Your task to perform on an android device: change the clock display to digital Image 0: 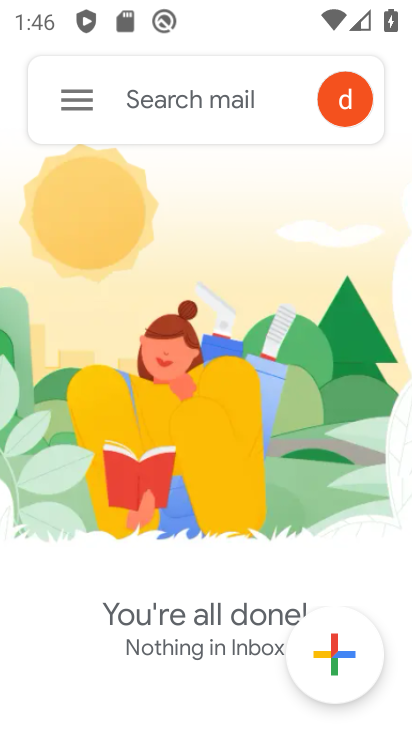
Step 0: press home button
Your task to perform on an android device: change the clock display to digital Image 1: 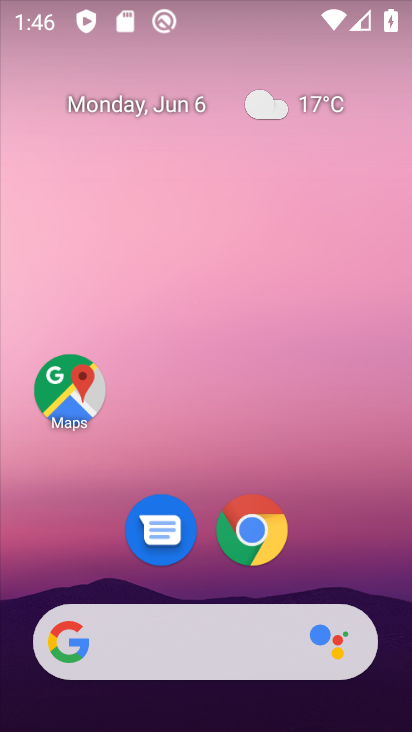
Step 1: drag from (313, 564) to (323, 224)
Your task to perform on an android device: change the clock display to digital Image 2: 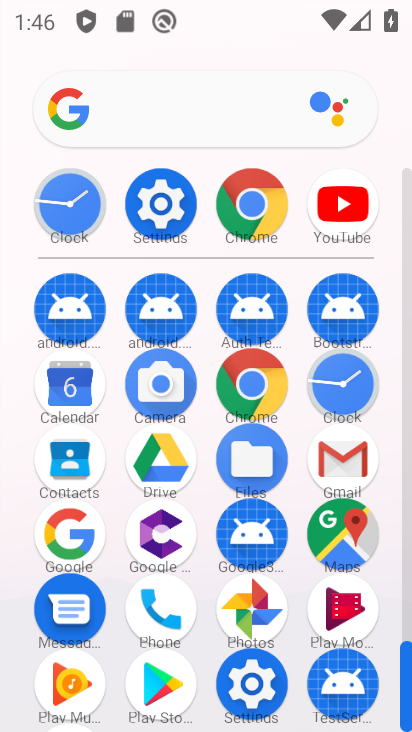
Step 2: click (347, 372)
Your task to perform on an android device: change the clock display to digital Image 3: 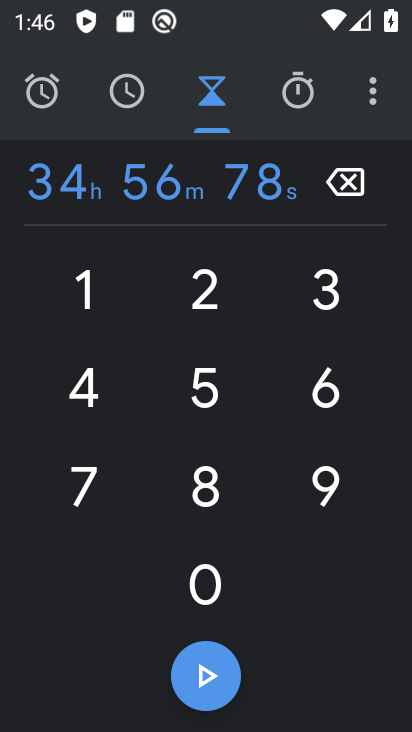
Step 3: click (367, 89)
Your task to perform on an android device: change the clock display to digital Image 4: 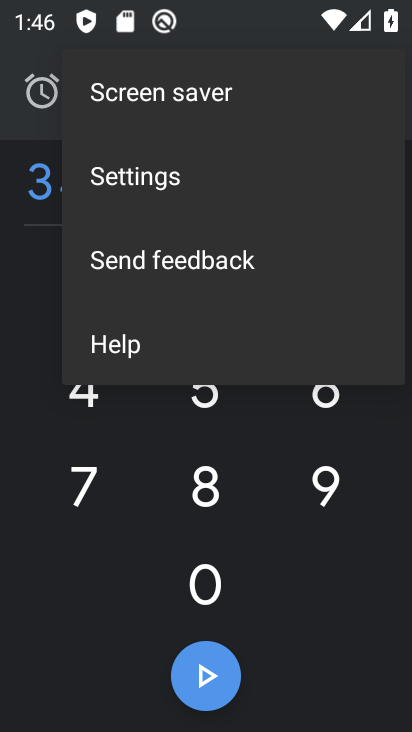
Step 4: click (201, 171)
Your task to perform on an android device: change the clock display to digital Image 5: 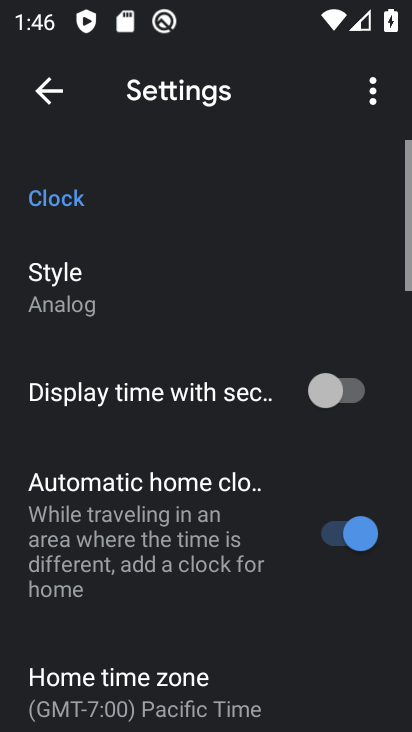
Step 5: click (88, 291)
Your task to perform on an android device: change the clock display to digital Image 6: 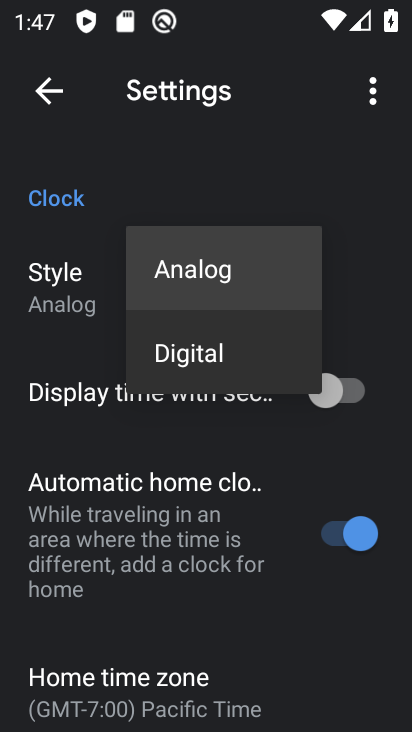
Step 6: click (175, 343)
Your task to perform on an android device: change the clock display to digital Image 7: 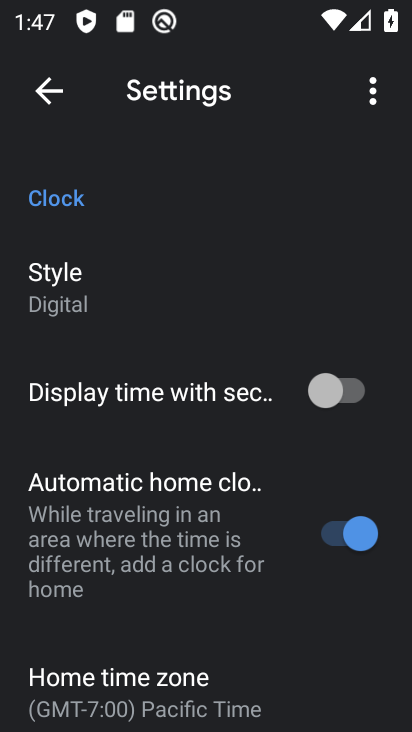
Step 7: task complete